Your task to perform on an android device: toggle show notifications on the lock screen Image 0: 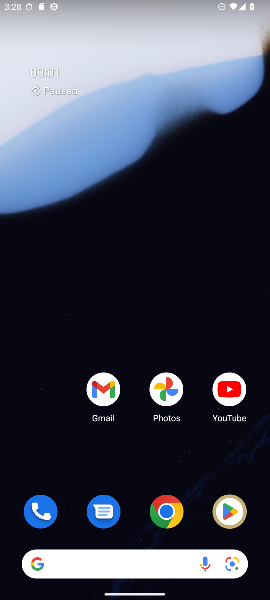
Step 0: drag from (152, 474) to (168, 357)
Your task to perform on an android device: toggle show notifications on the lock screen Image 1: 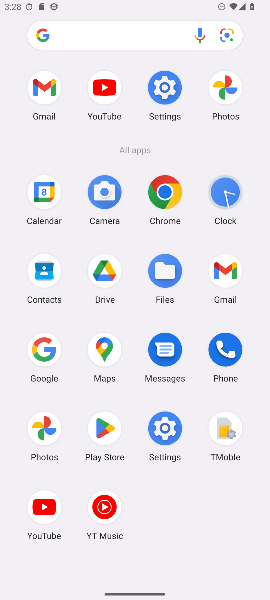
Step 1: click (176, 428)
Your task to perform on an android device: toggle show notifications on the lock screen Image 2: 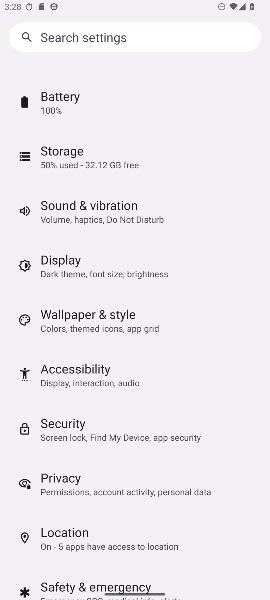
Step 2: drag from (135, 108) to (240, 515)
Your task to perform on an android device: toggle show notifications on the lock screen Image 3: 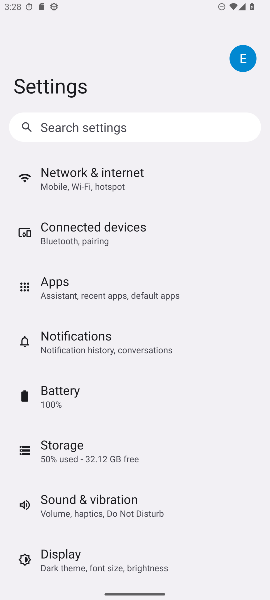
Step 3: click (68, 335)
Your task to perform on an android device: toggle show notifications on the lock screen Image 4: 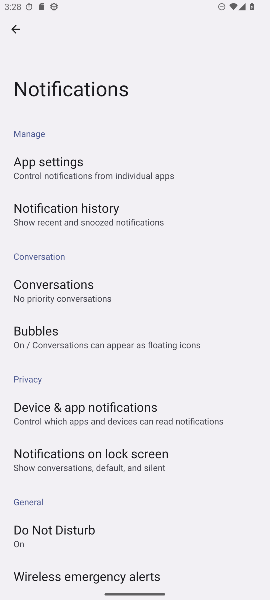
Step 4: click (102, 461)
Your task to perform on an android device: toggle show notifications on the lock screen Image 5: 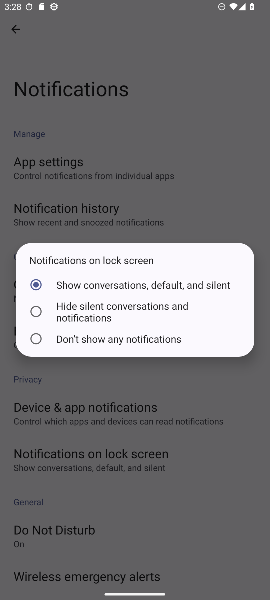
Step 5: click (77, 339)
Your task to perform on an android device: toggle show notifications on the lock screen Image 6: 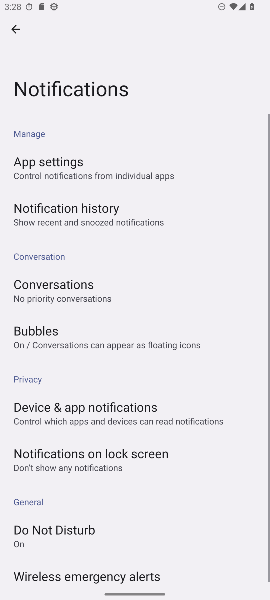
Step 6: task complete